Your task to perform on an android device: turn notification dots on Image 0: 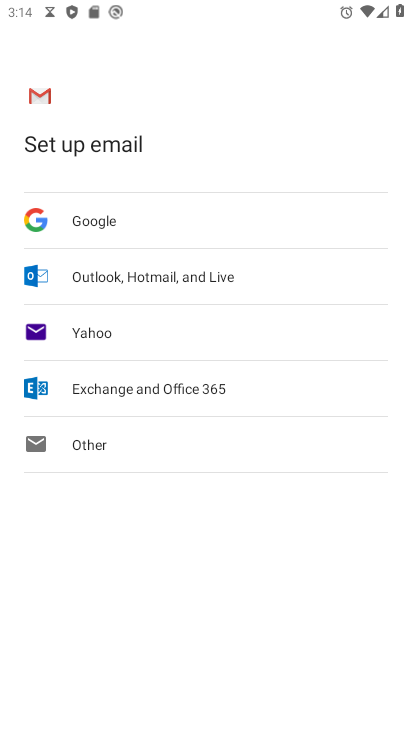
Step 0: press home button
Your task to perform on an android device: turn notification dots on Image 1: 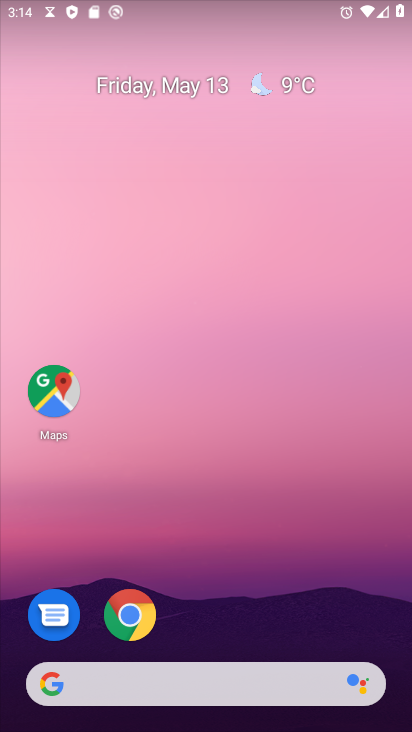
Step 1: drag from (192, 725) to (190, 144)
Your task to perform on an android device: turn notification dots on Image 2: 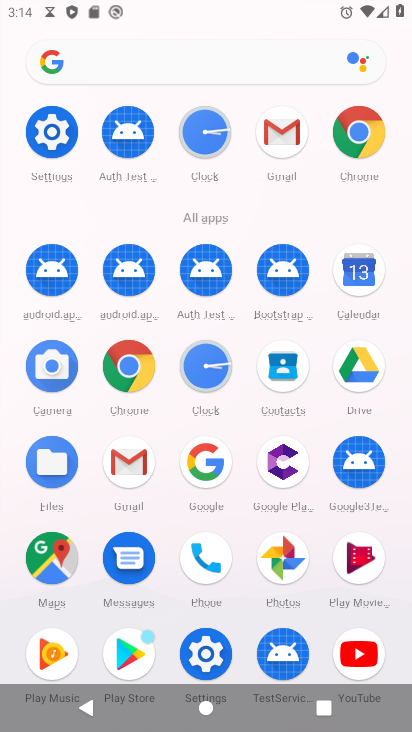
Step 2: click (48, 135)
Your task to perform on an android device: turn notification dots on Image 3: 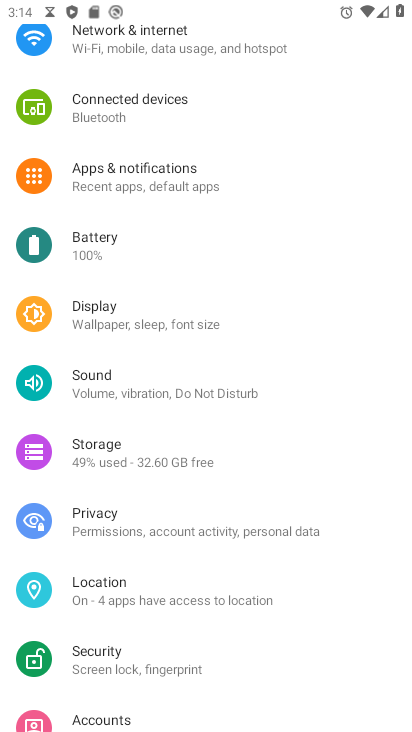
Step 3: click (132, 178)
Your task to perform on an android device: turn notification dots on Image 4: 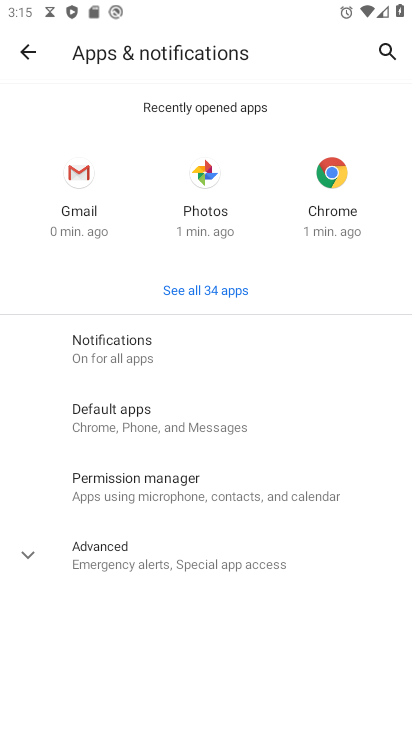
Step 4: click (111, 345)
Your task to perform on an android device: turn notification dots on Image 5: 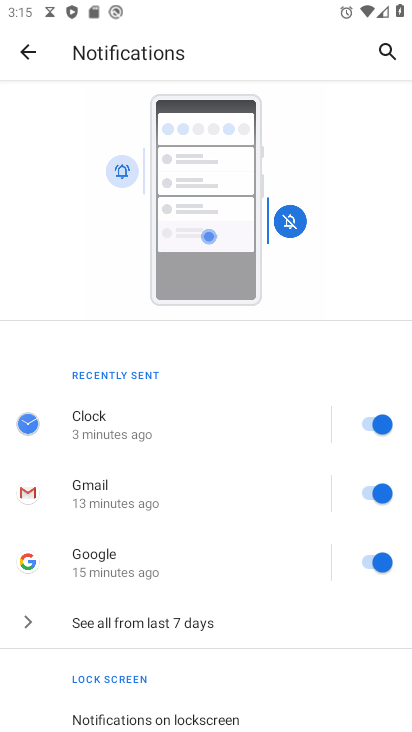
Step 5: drag from (179, 645) to (184, 292)
Your task to perform on an android device: turn notification dots on Image 6: 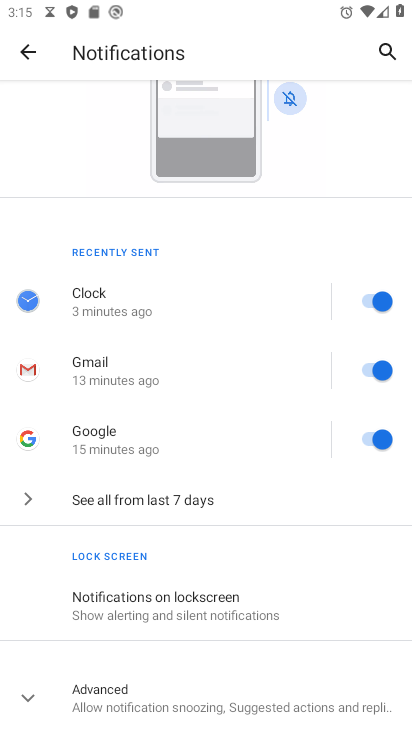
Step 6: click (156, 698)
Your task to perform on an android device: turn notification dots on Image 7: 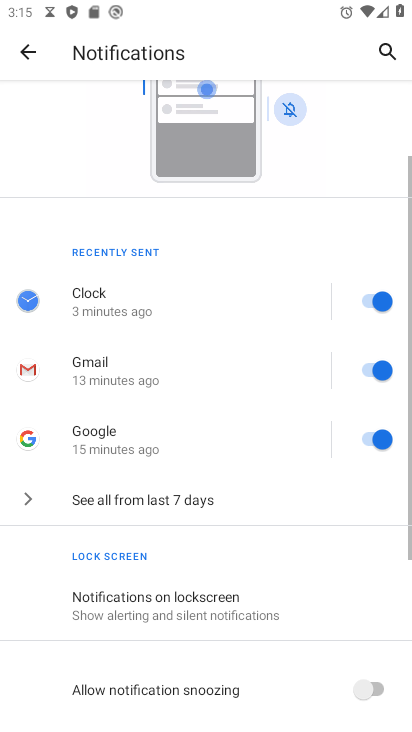
Step 7: task complete